Your task to perform on an android device: See recent photos Image 0: 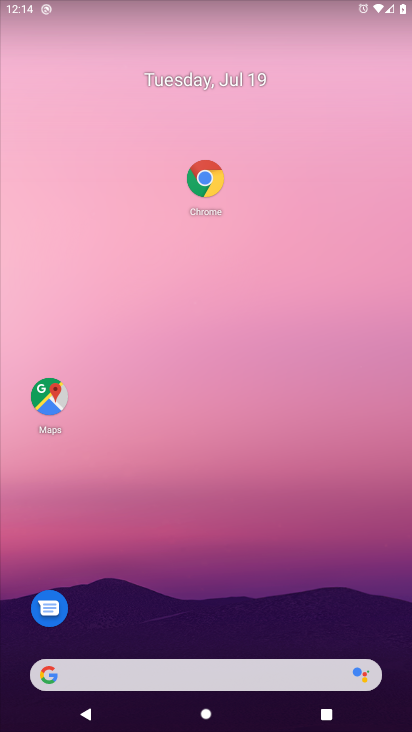
Step 0: drag from (45, 691) to (210, 34)
Your task to perform on an android device: See recent photos Image 1: 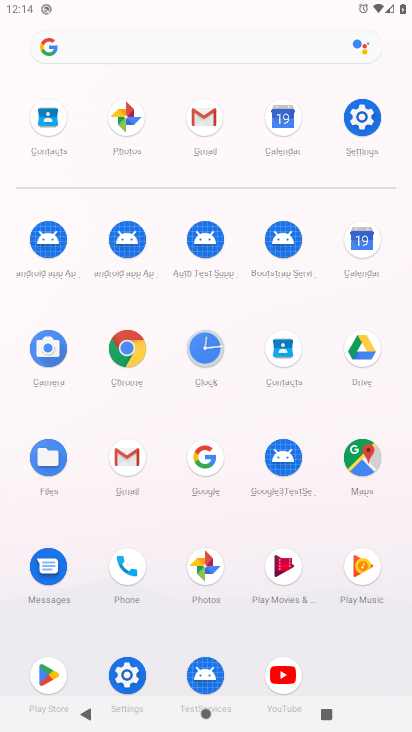
Step 1: click (213, 566)
Your task to perform on an android device: See recent photos Image 2: 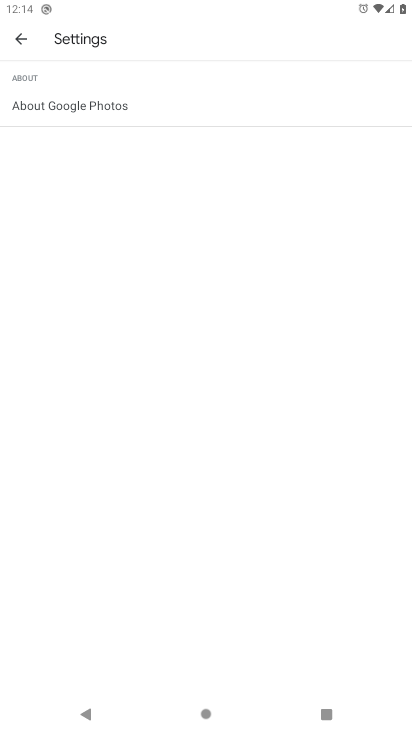
Step 2: click (9, 35)
Your task to perform on an android device: See recent photos Image 3: 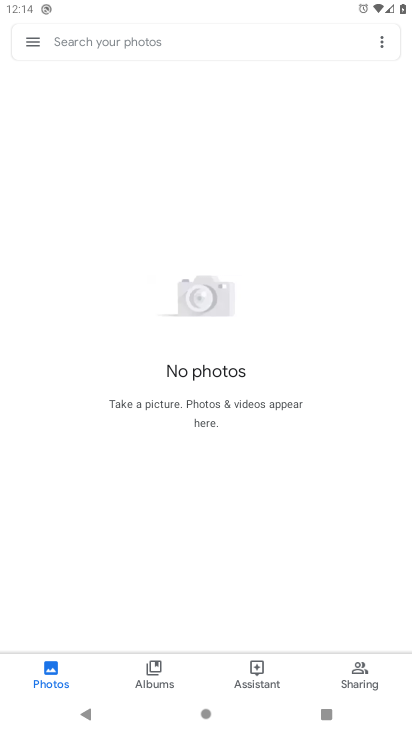
Step 3: task complete